Your task to perform on an android device: Open sound settings Image 0: 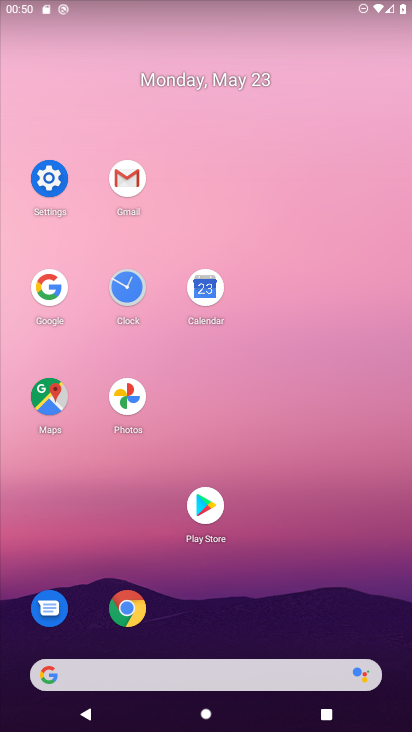
Step 0: click (56, 171)
Your task to perform on an android device: Open sound settings Image 1: 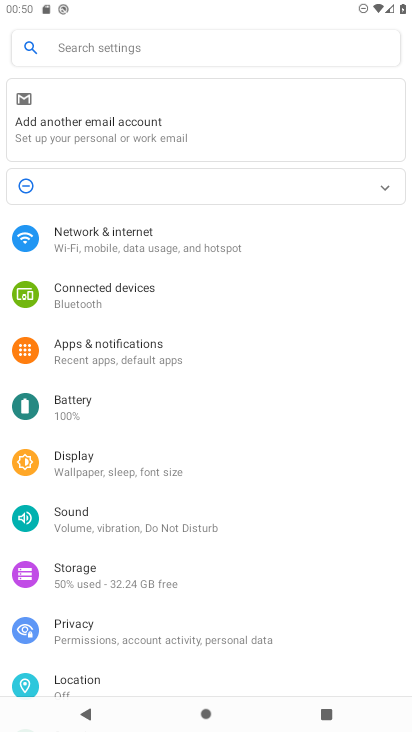
Step 1: click (55, 509)
Your task to perform on an android device: Open sound settings Image 2: 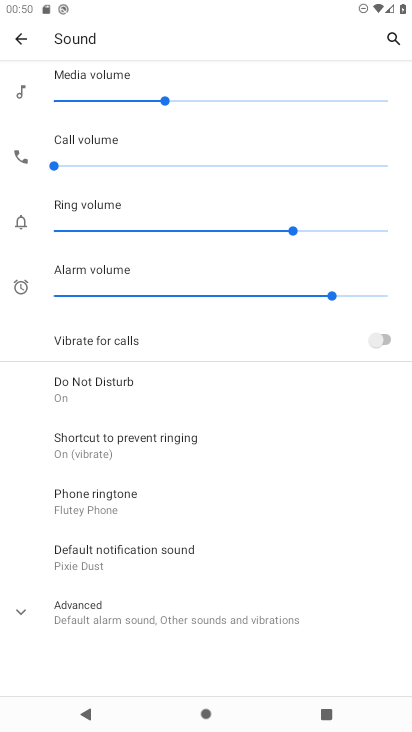
Step 2: task complete